Your task to perform on an android device: open a bookmark in the chrome app Image 0: 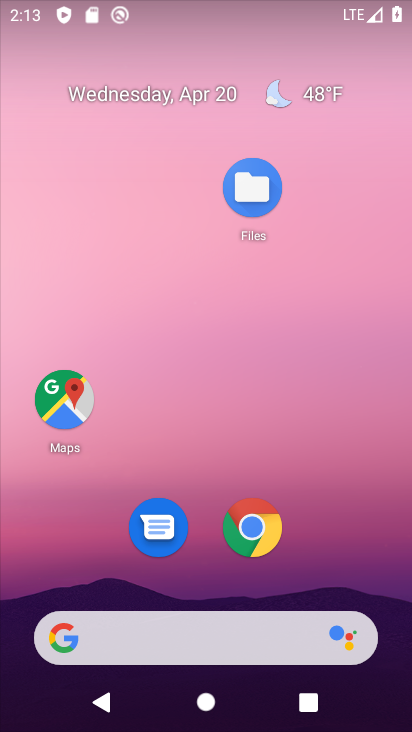
Step 0: click (251, 522)
Your task to perform on an android device: open a bookmark in the chrome app Image 1: 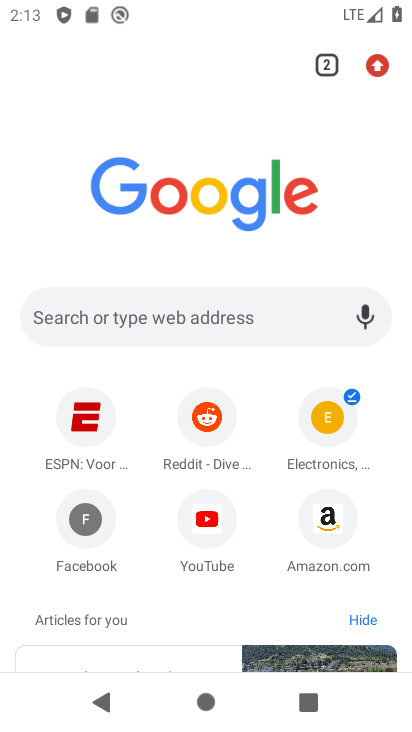
Step 1: click (375, 56)
Your task to perform on an android device: open a bookmark in the chrome app Image 2: 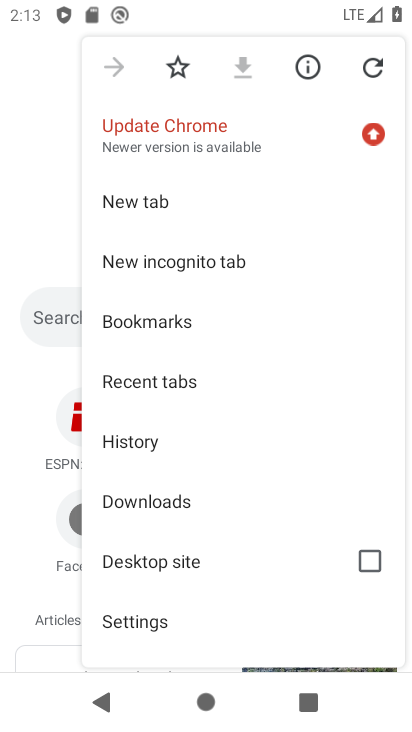
Step 2: click (143, 318)
Your task to perform on an android device: open a bookmark in the chrome app Image 3: 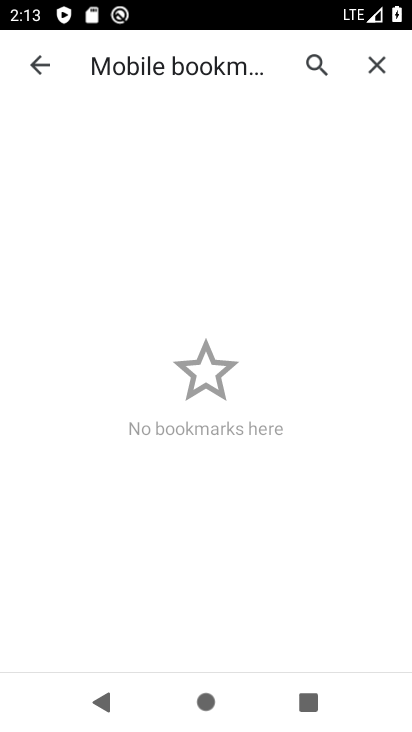
Step 3: task complete